Your task to perform on an android device: change alarm snooze length Image 0: 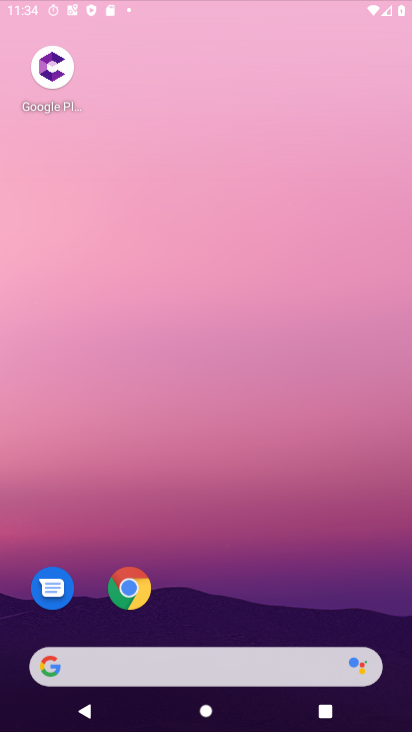
Step 0: click (327, 56)
Your task to perform on an android device: change alarm snooze length Image 1: 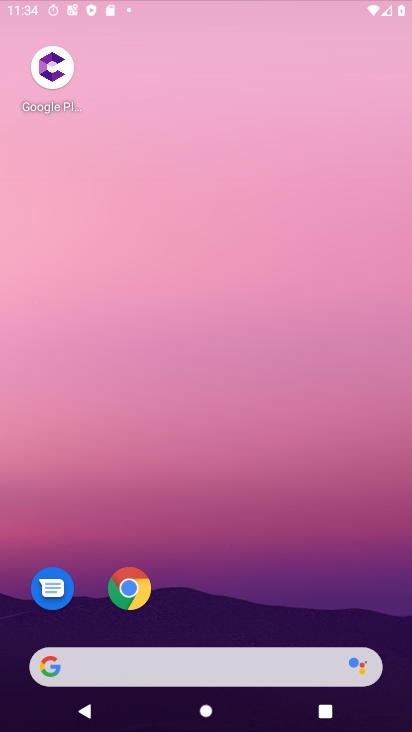
Step 1: drag from (169, 622) to (288, 20)
Your task to perform on an android device: change alarm snooze length Image 2: 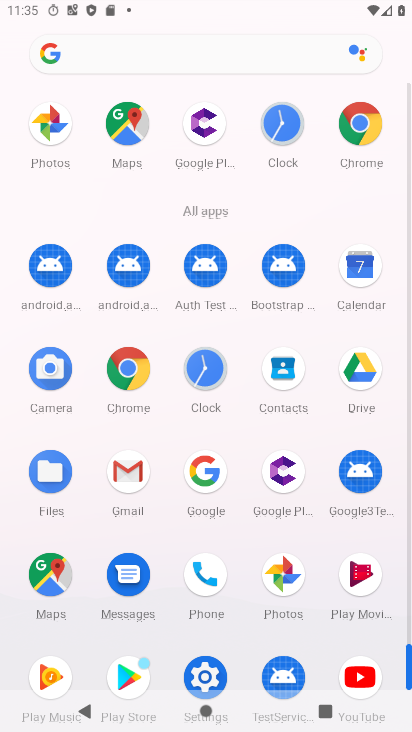
Step 2: click (285, 117)
Your task to perform on an android device: change alarm snooze length Image 3: 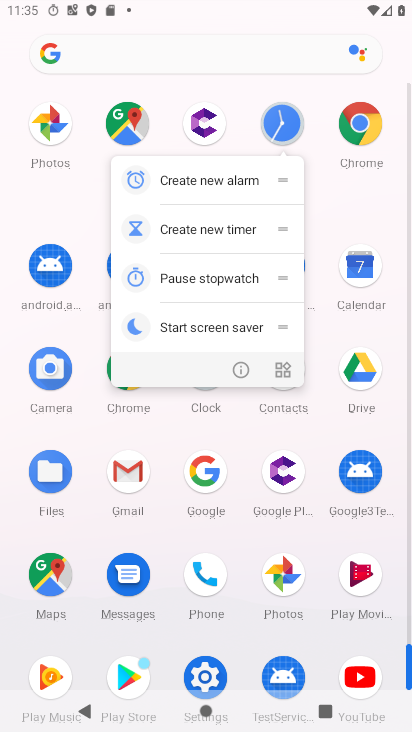
Step 3: click (237, 364)
Your task to perform on an android device: change alarm snooze length Image 4: 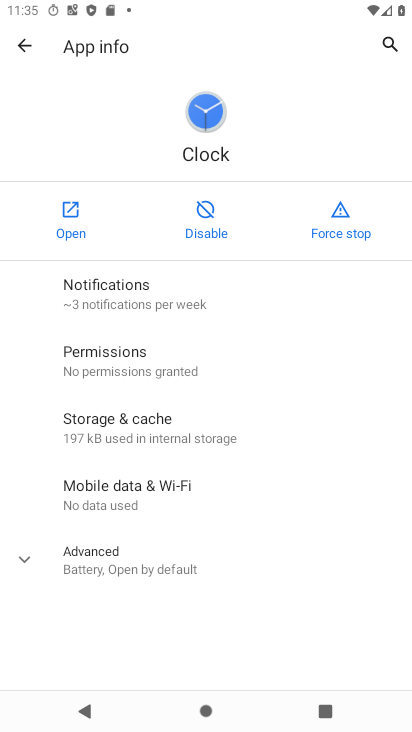
Step 4: click (70, 210)
Your task to perform on an android device: change alarm snooze length Image 5: 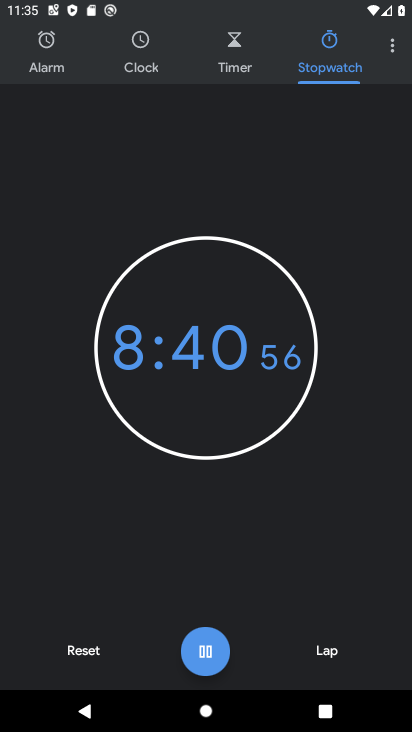
Step 5: drag from (238, 516) to (243, 193)
Your task to perform on an android device: change alarm snooze length Image 6: 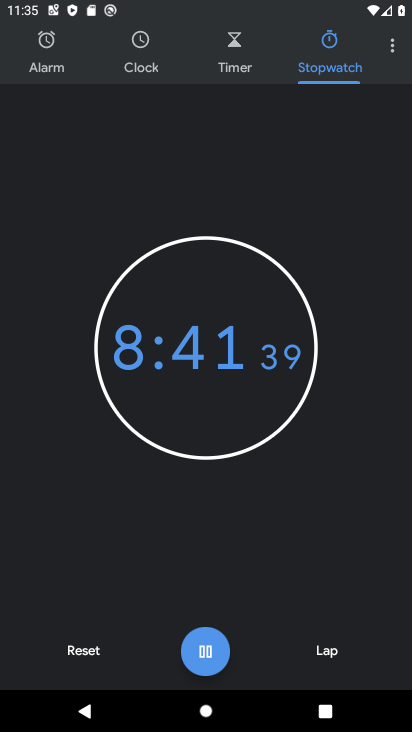
Step 6: drag from (199, 164) to (270, 602)
Your task to perform on an android device: change alarm snooze length Image 7: 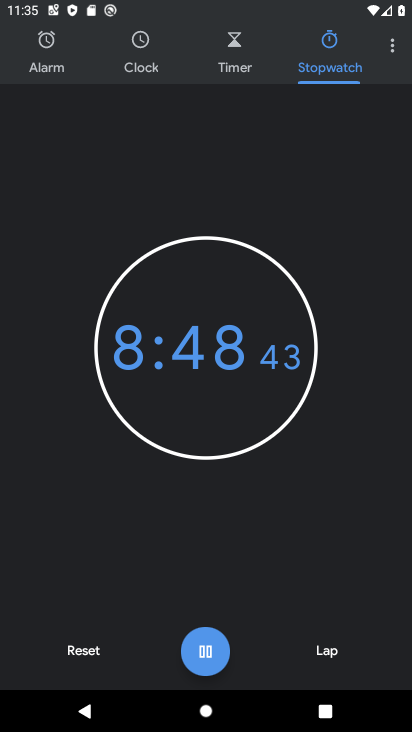
Step 7: click (389, 44)
Your task to perform on an android device: change alarm snooze length Image 8: 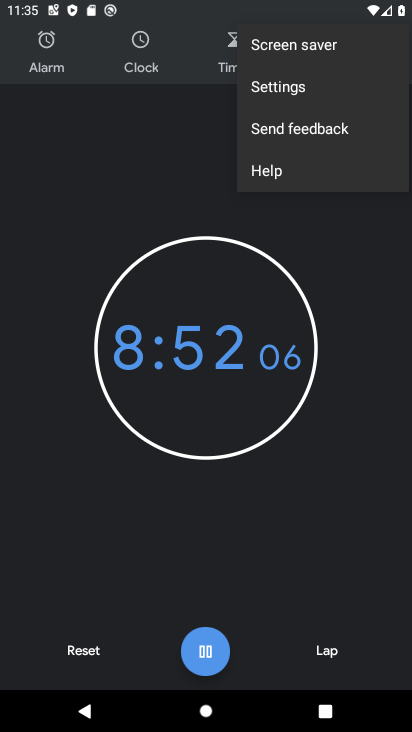
Step 8: click (282, 84)
Your task to perform on an android device: change alarm snooze length Image 9: 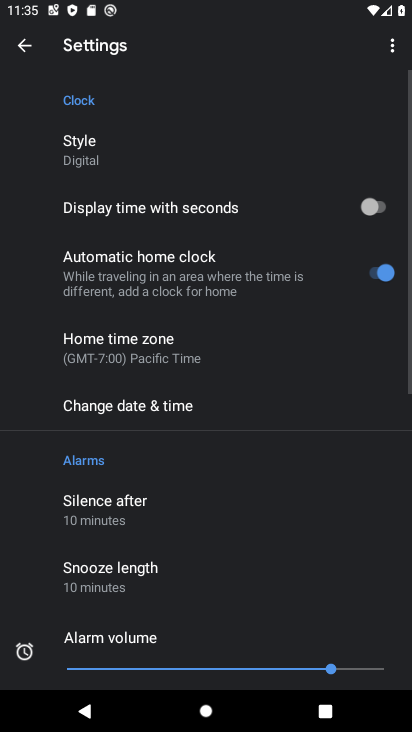
Step 9: drag from (212, 484) to (301, 169)
Your task to perform on an android device: change alarm snooze length Image 10: 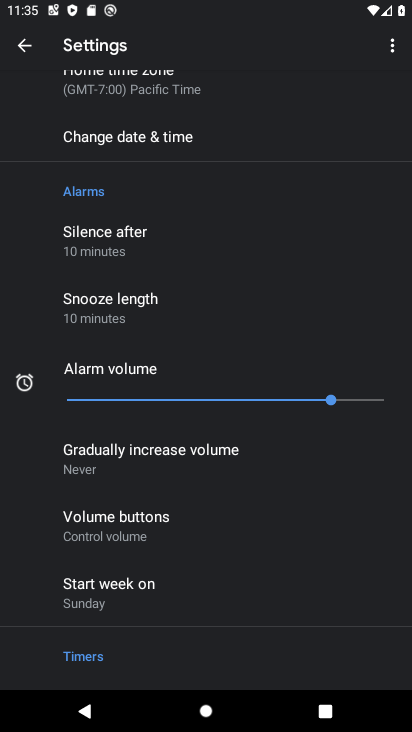
Step 10: click (143, 306)
Your task to perform on an android device: change alarm snooze length Image 11: 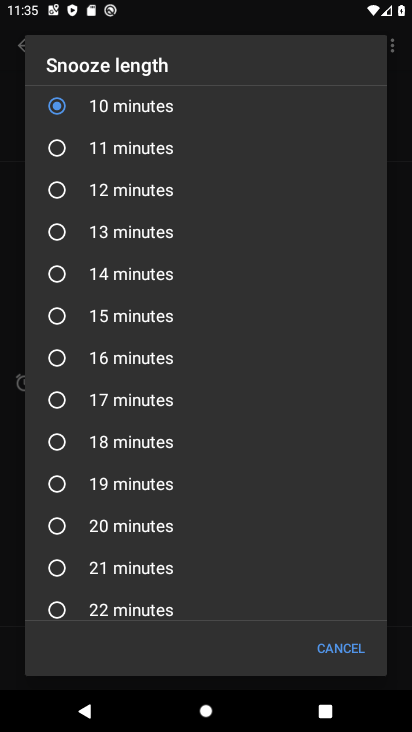
Step 11: drag from (165, 178) to (195, 583)
Your task to perform on an android device: change alarm snooze length Image 12: 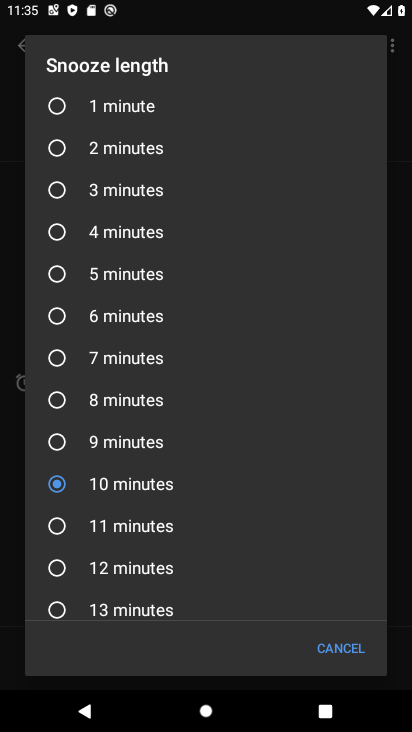
Step 12: drag from (180, 136) to (343, 635)
Your task to perform on an android device: change alarm snooze length Image 13: 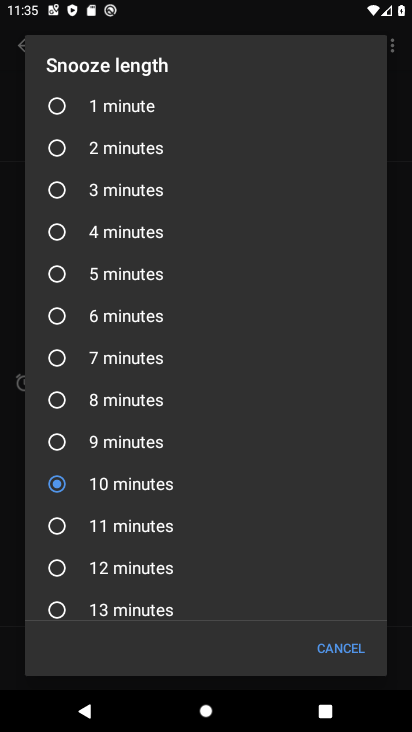
Step 13: click (100, 112)
Your task to perform on an android device: change alarm snooze length Image 14: 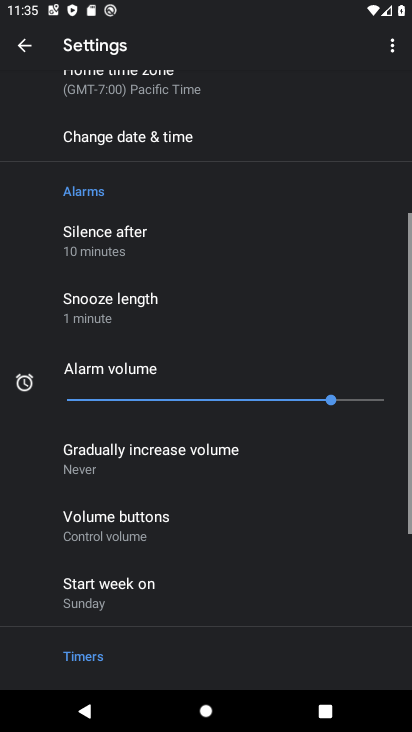
Step 14: drag from (190, 494) to (292, 169)
Your task to perform on an android device: change alarm snooze length Image 15: 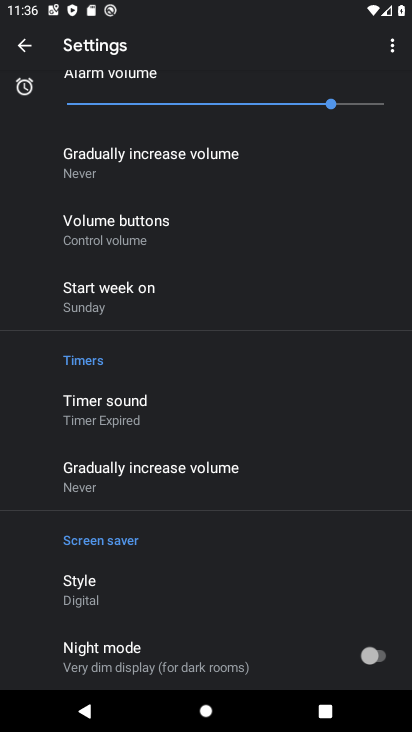
Step 15: drag from (251, 227) to (333, 722)
Your task to perform on an android device: change alarm snooze length Image 16: 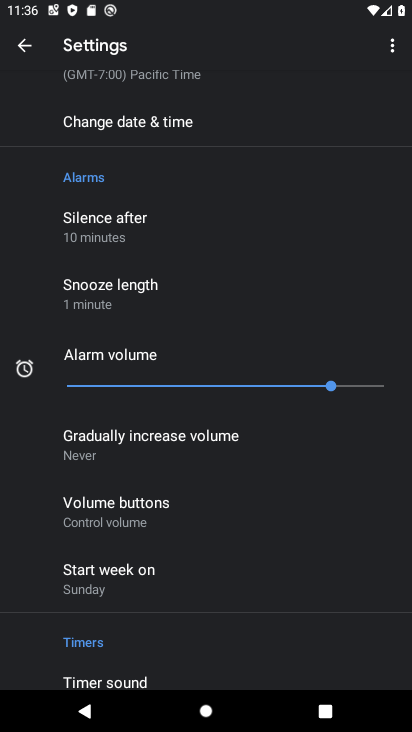
Step 16: drag from (177, 235) to (274, 637)
Your task to perform on an android device: change alarm snooze length Image 17: 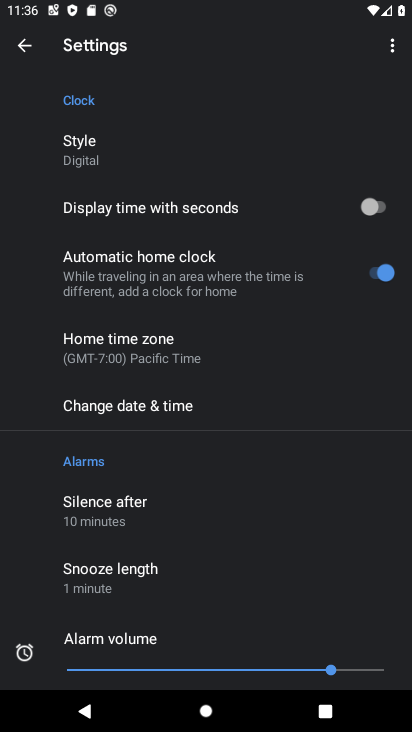
Step 17: click (132, 572)
Your task to perform on an android device: change alarm snooze length Image 18: 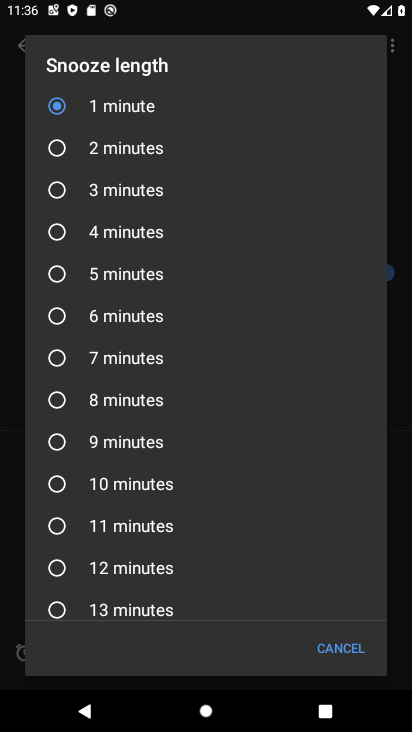
Step 18: task complete